Your task to perform on an android device: When is my next appointment? Image 0: 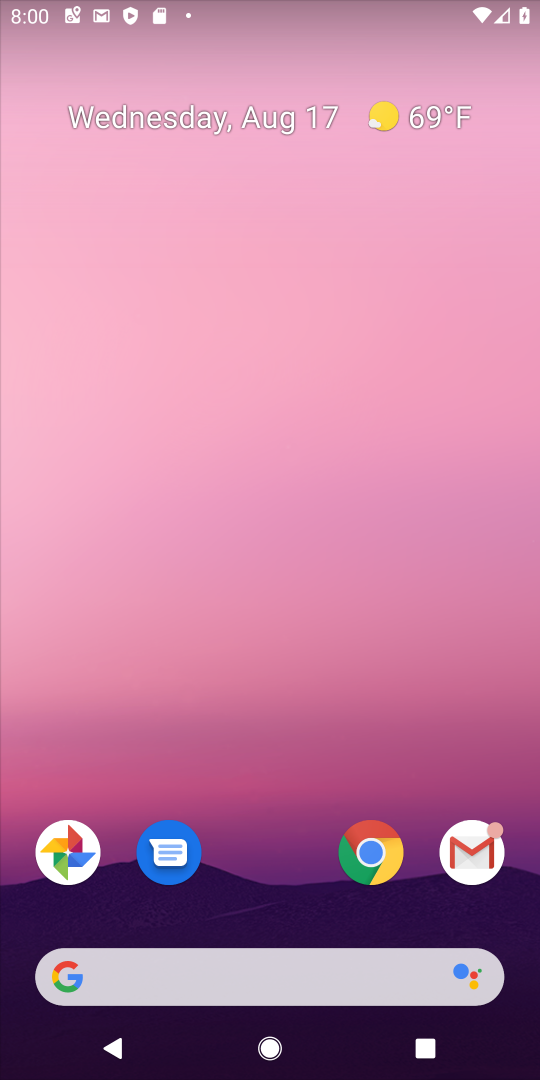
Step 0: drag from (283, 911) to (177, 339)
Your task to perform on an android device: When is my next appointment? Image 1: 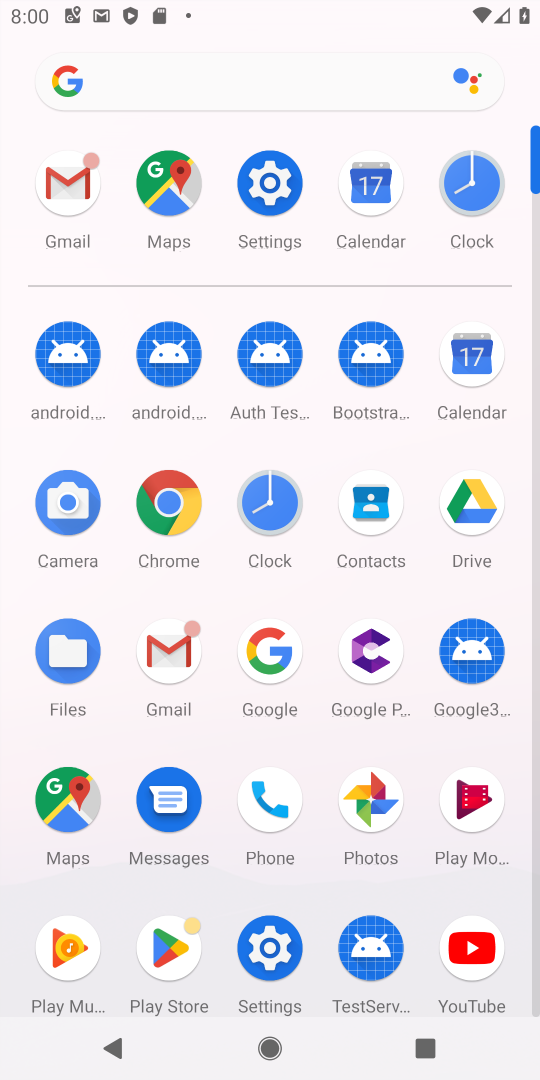
Step 1: click (467, 363)
Your task to perform on an android device: When is my next appointment? Image 2: 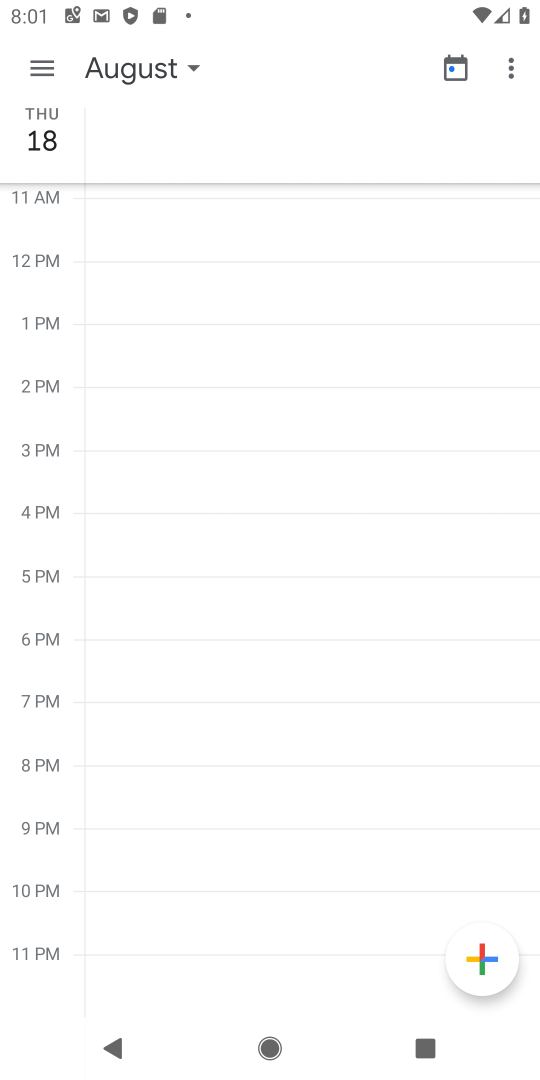
Step 2: click (187, 69)
Your task to perform on an android device: When is my next appointment? Image 3: 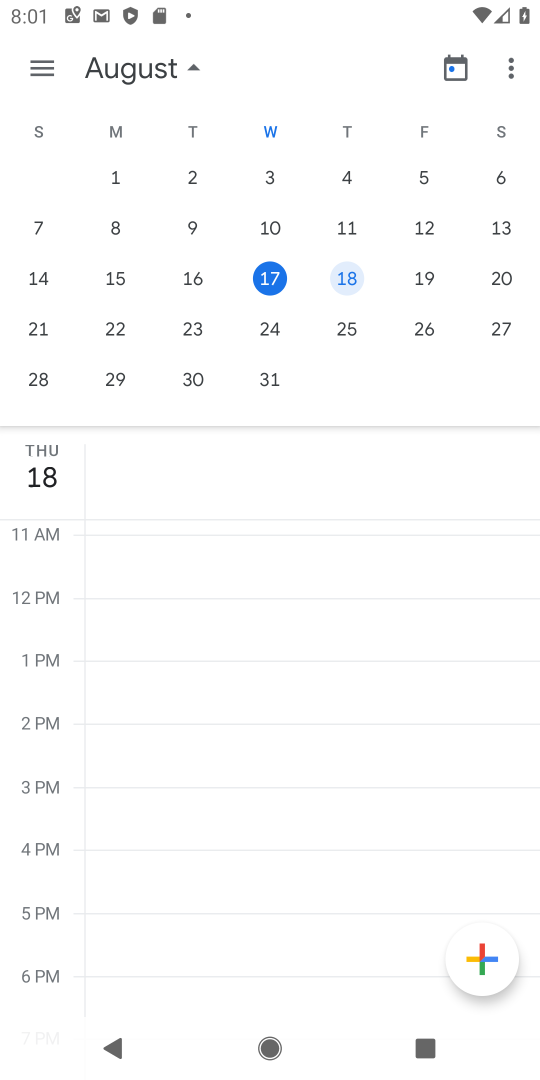
Step 3: click (271, 285)
Your task to perform on an android device: When is my next appointment? Image 4: 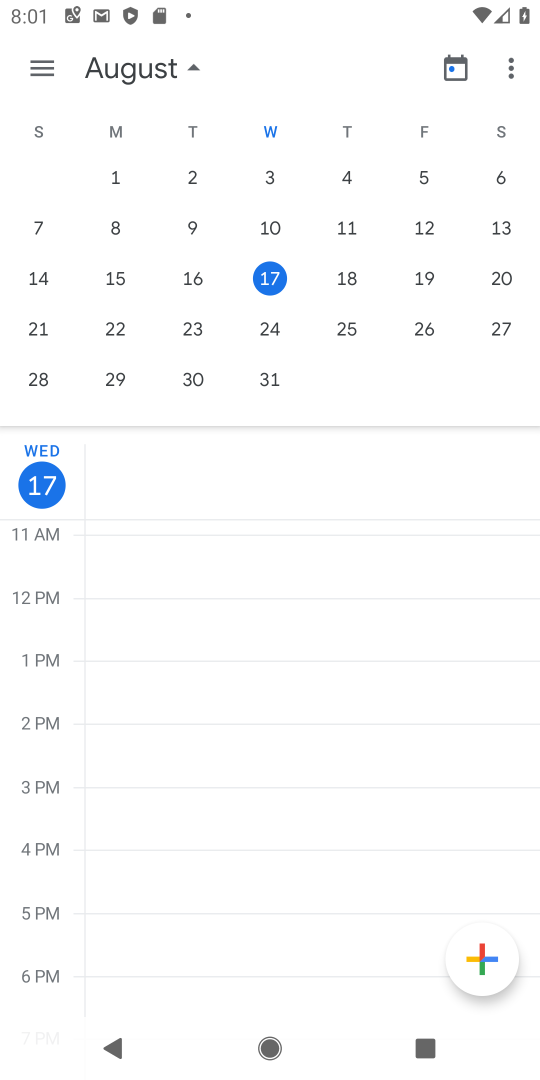
Step 4: task complete